Your task to perform on an android device: open app "Spotify: Music and Podcasts" (install if not already installed), go to login, and select forgot password Image 0: 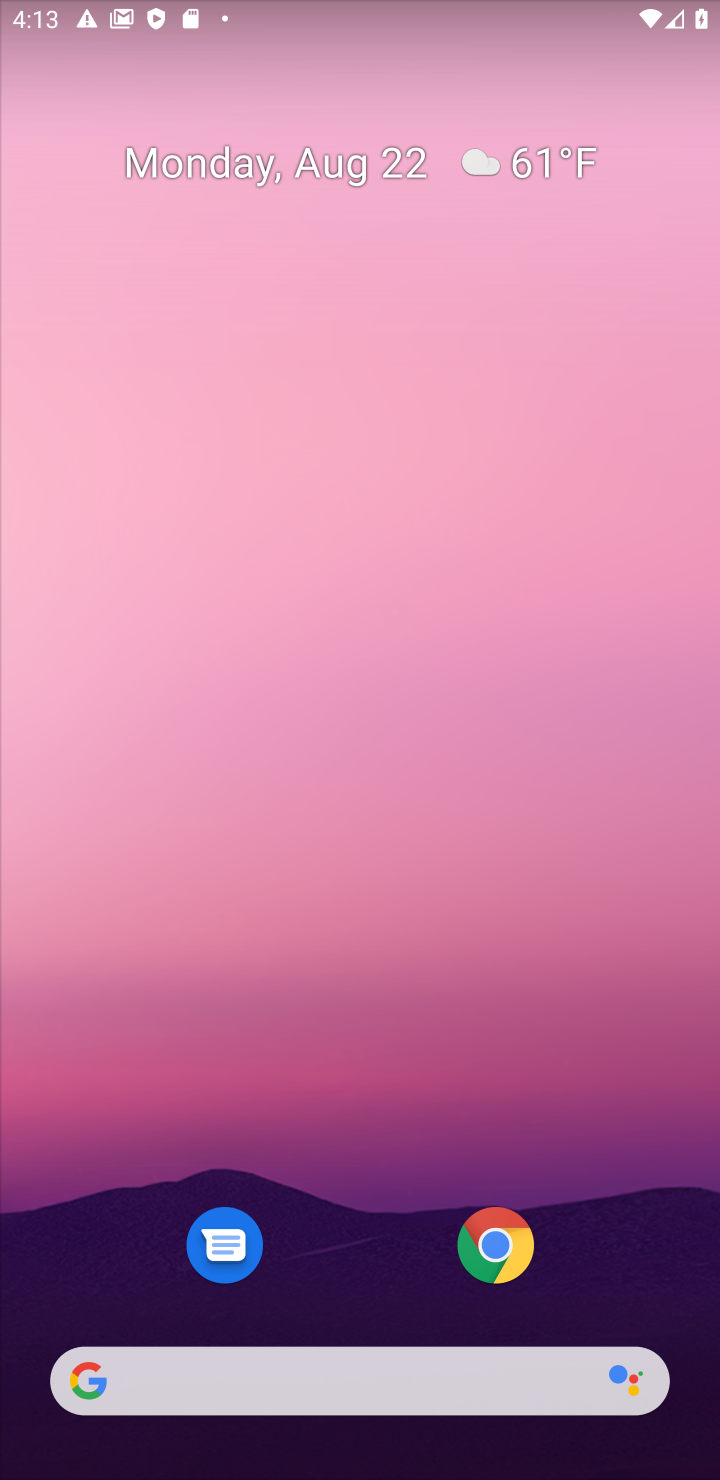
Step 0: press home button
Your task to perform on an android device: open app "Spotify: Music and Podcasts" (install if not already installed), go to login, and select forgot password Image 1: 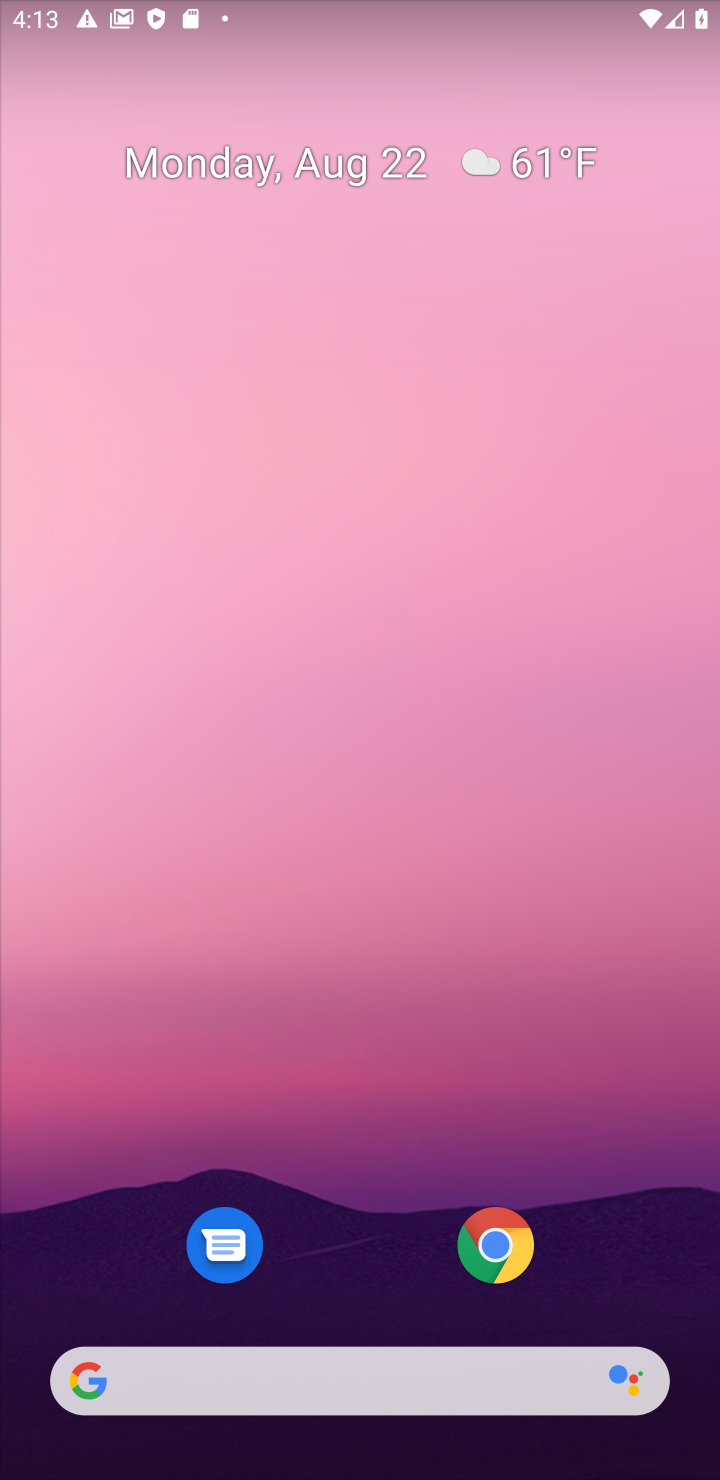
Step 1: drag from (617, 1242) to (637, 266)
Your task to perform on an android device: open app "Spotify: Music and Podcasts" (install if not already installed), go to login, and select forgot password Image 2: 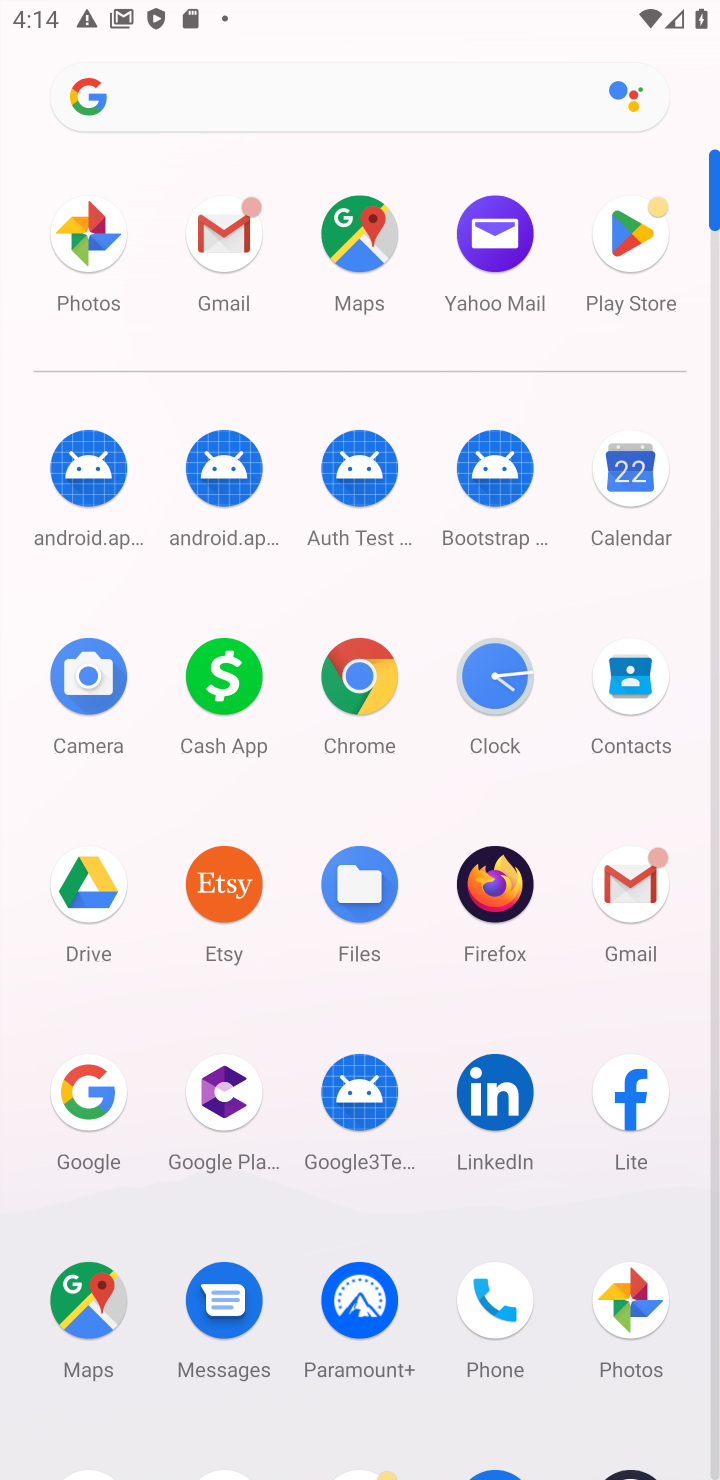
Step 2: click (628, 231)
Your task to perform on an android device: open app "Spotify: Music and Podcasts" (install if not already installed), go to login, and select forgot password Image 3: 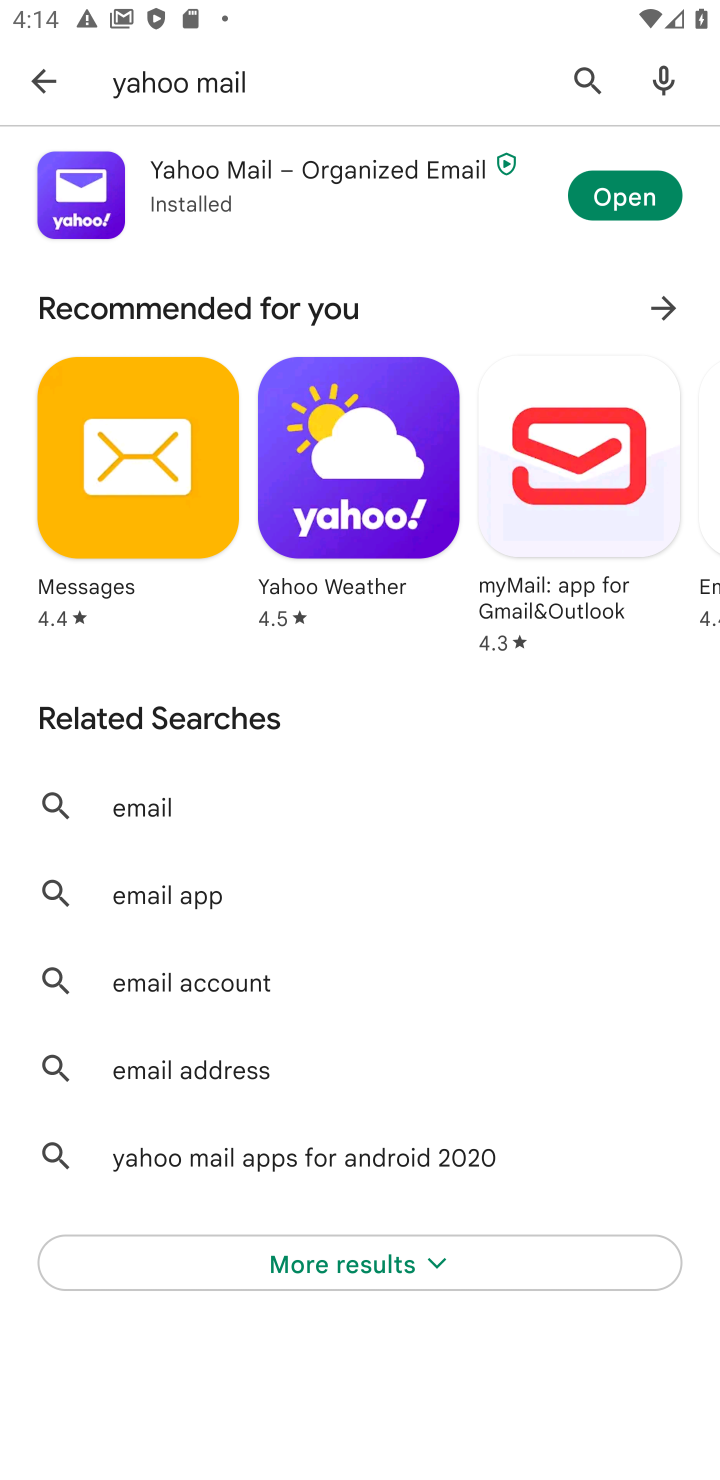
Step 3: press back button
Your task to perform on an android device: open app "Spotify: Music and Podcasts" (install if not already installed), go to login, and select forgot password Image 4: 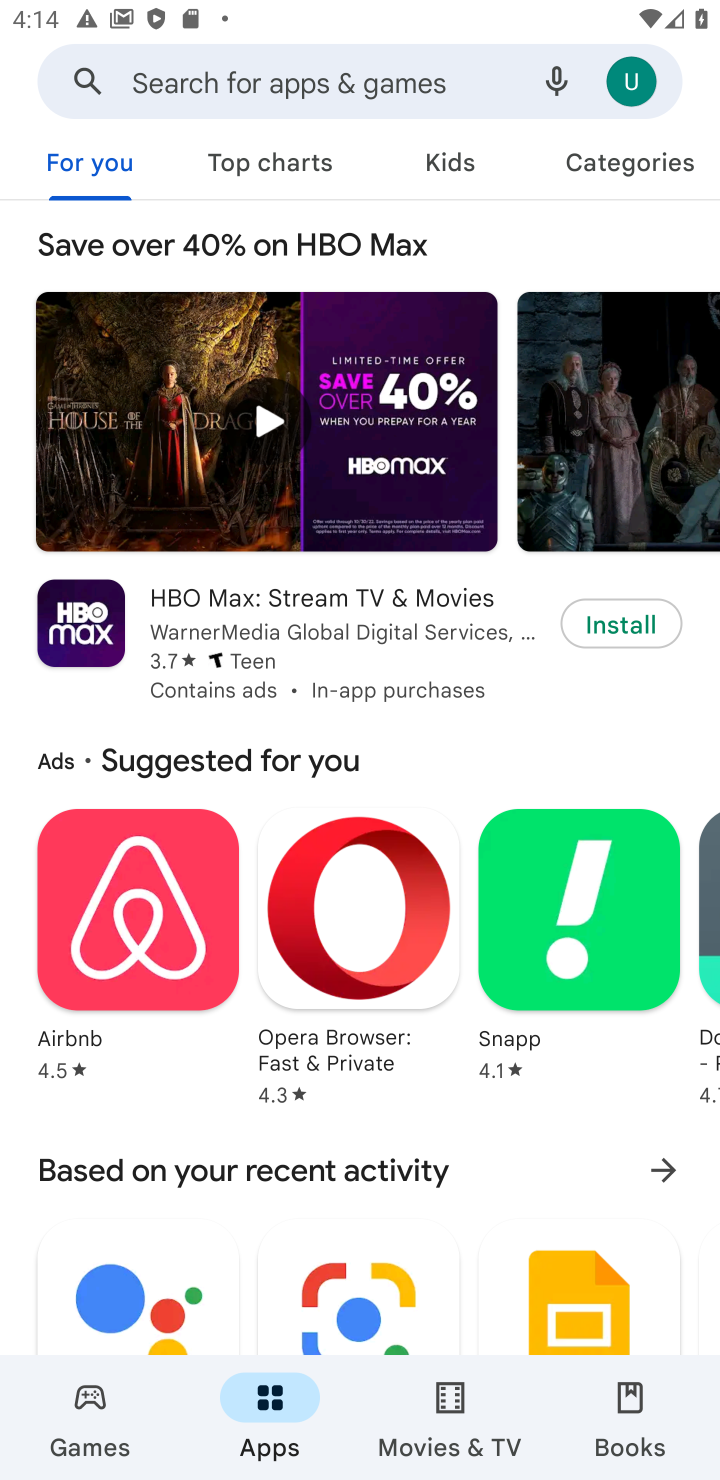
Step 4: click (384, 83)
Your task to perform on an android device: open app "Spotify: Music and Podcasts" (install if not already installed), go to login, and select forgot password Image 5: 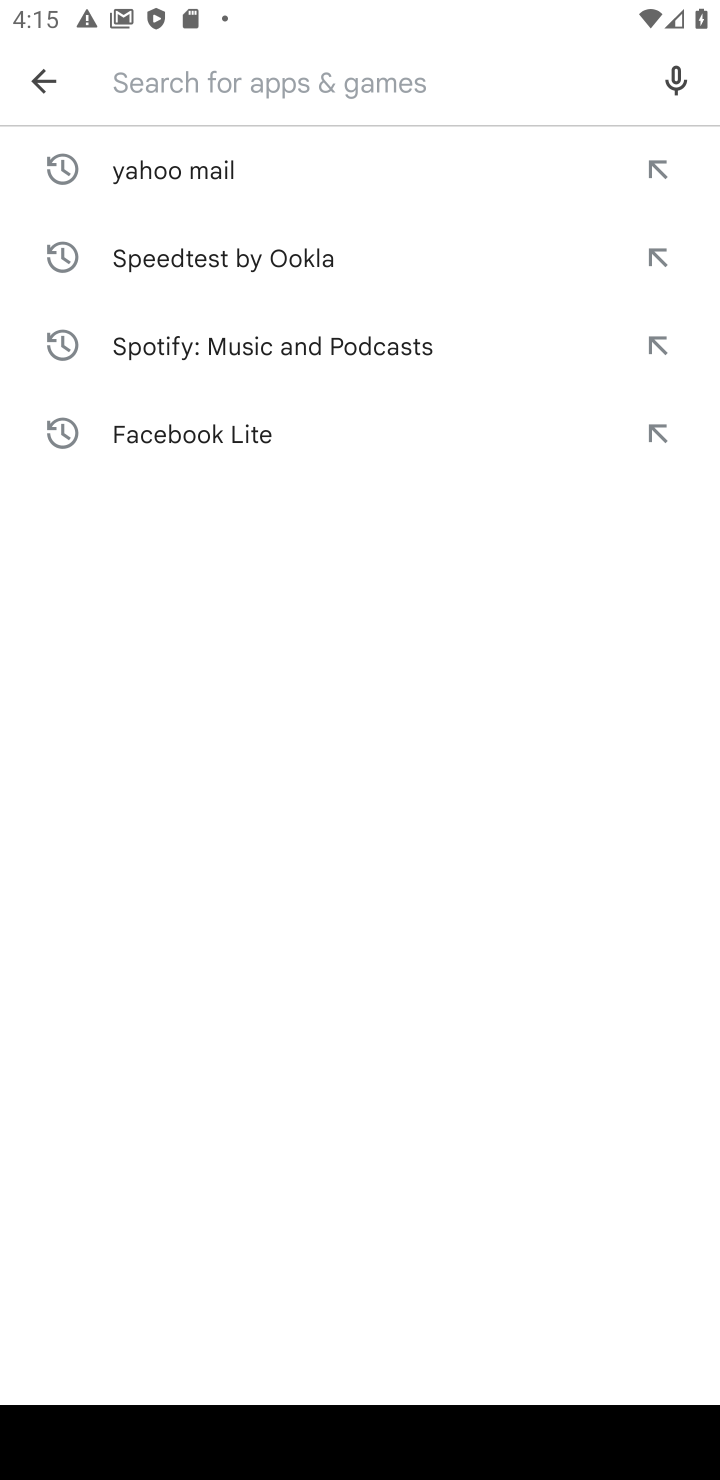
Step 5: type "Spotify: Music and Podcasts"
Your task to perform on an android device: open app "Spotify: Music and Podcasts" (install if not already installed), go to login, and select forgot password Image 6: 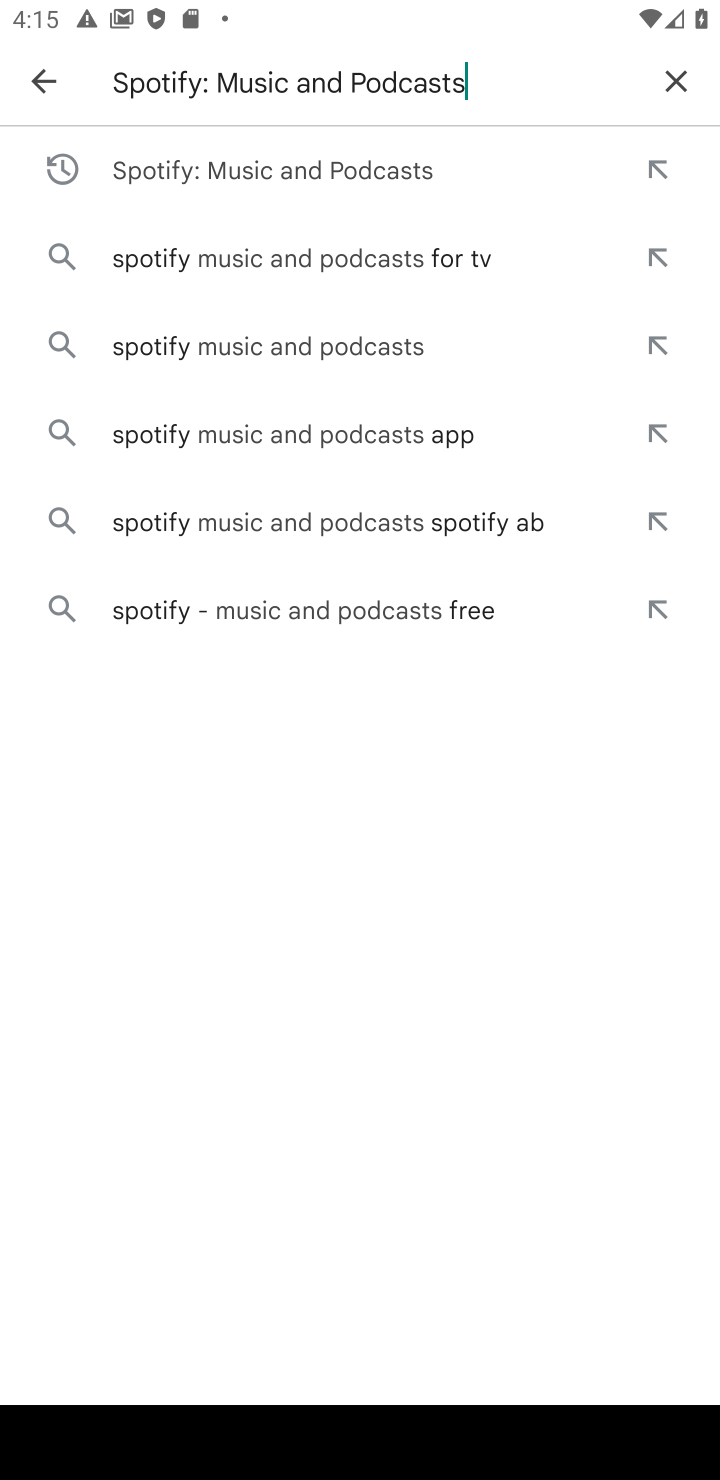
Step 6: press enter
Your task to perform on an android device: open app "Spotify: Music and Podcasts" (install if not already installed), go to login, and select forgot password Image 7: 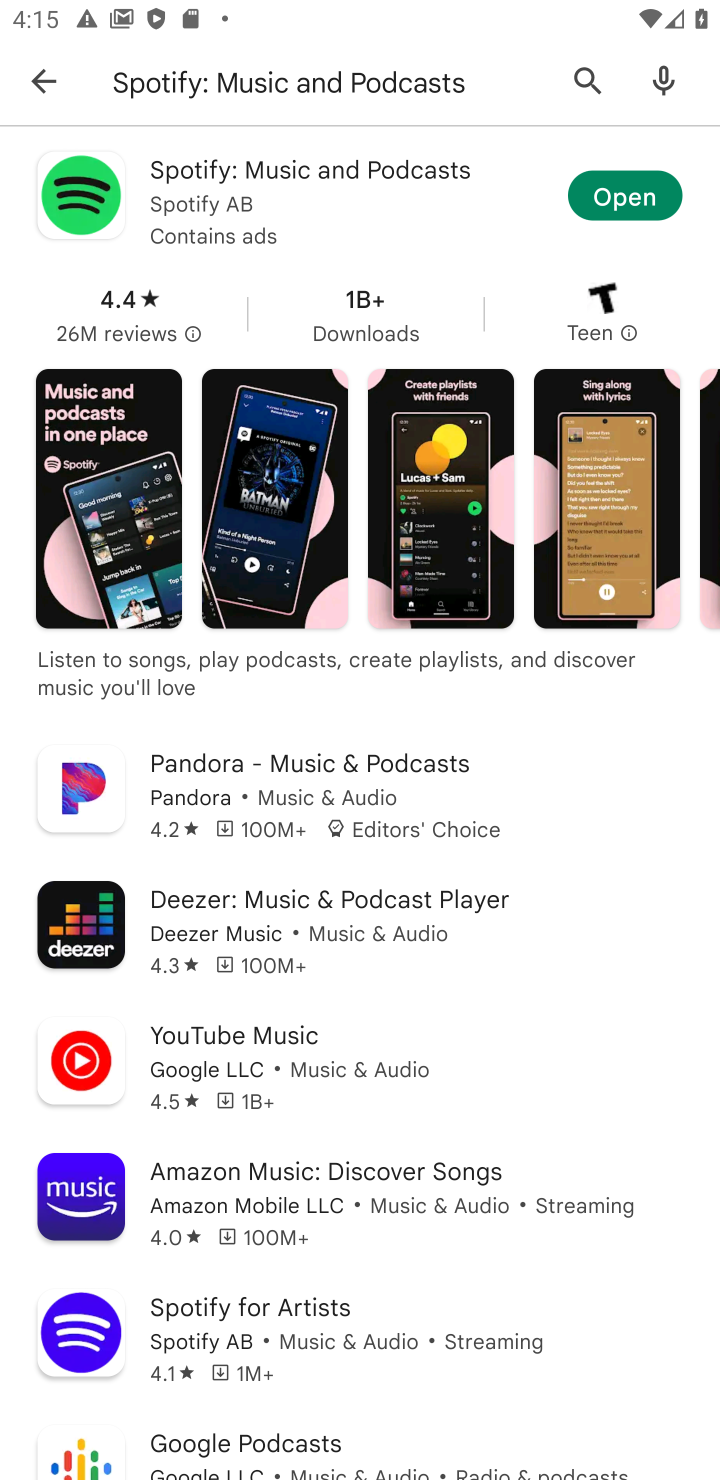
Step 7: click (621, 198)
Your task to perform on an android device: open app "Spotify: Music and Podcasts" (install if not already installed), go to login, and select forgot password Image 8: 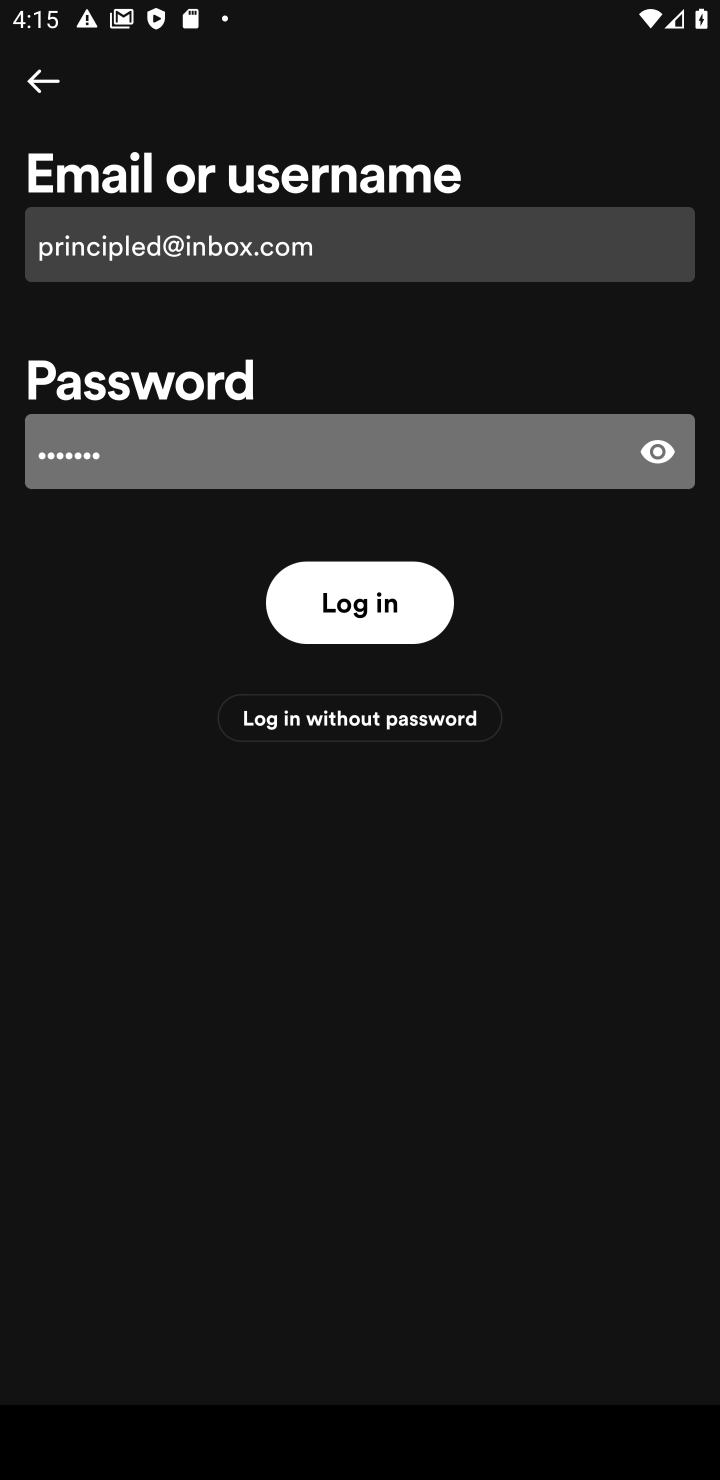
Step 8: task complete